Your task to perform on an android device: Open Google Maps Image 0: 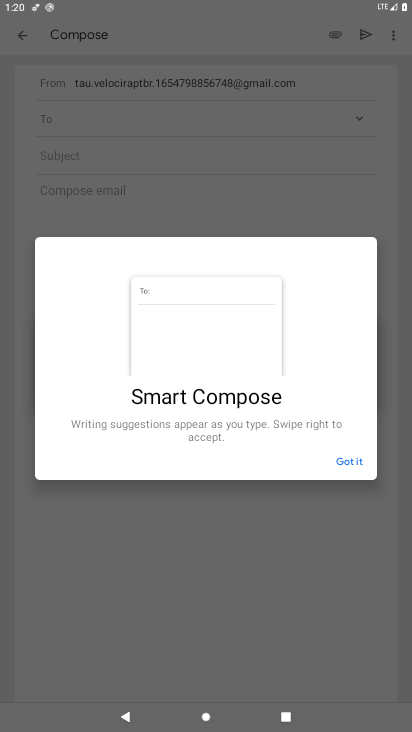
Step 0: press home button
Your task to perform on an android device: Open Google Maps Image 1: 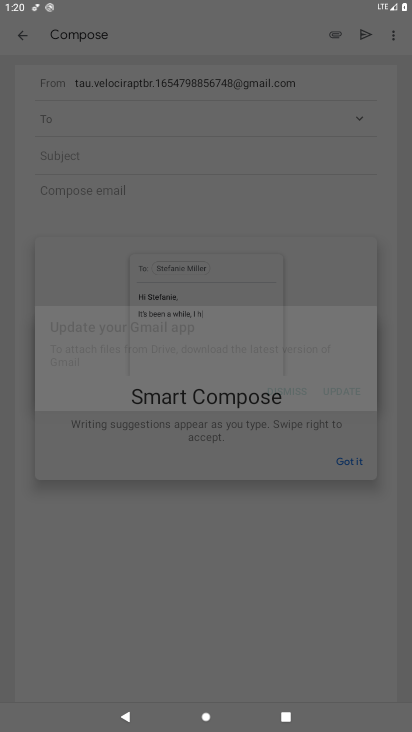
Step 1: press home button
Your task to perform on an android device: Open Google Maps Image 2: 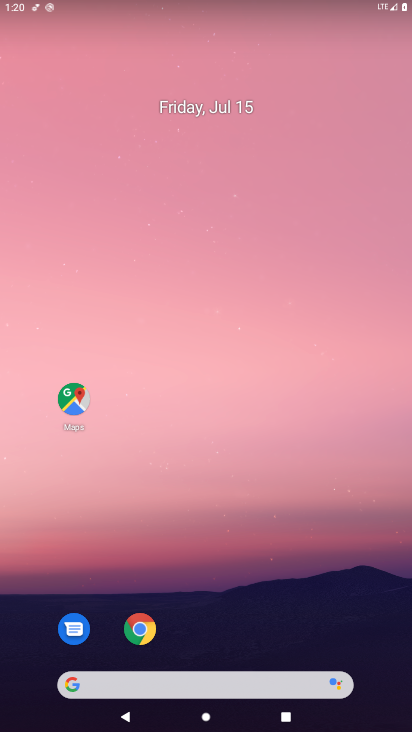
Step 2: click (73, 406)
Your task to perform on an android device: Open Google Maps Image 3: 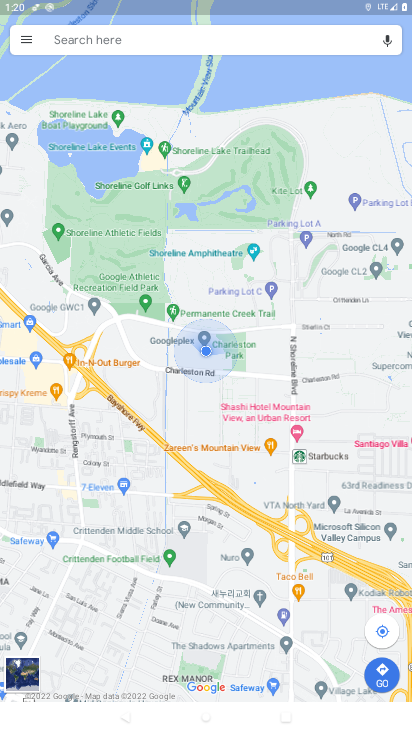
Step 3: task complete